Your task to perform on an android device: Open internet settings Image 0: 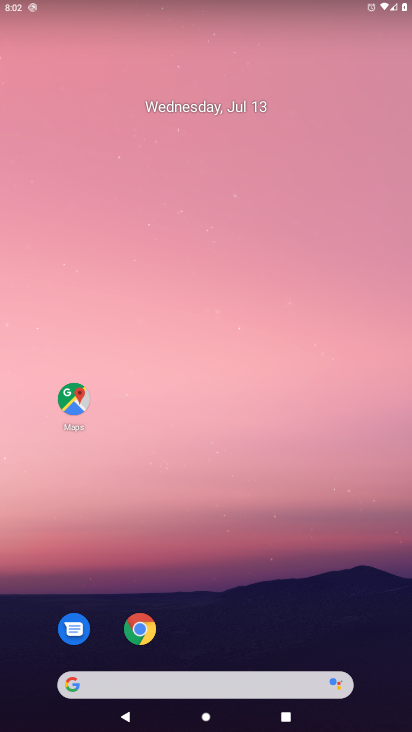
Step 0: drag from (20, 712) to (381, 43)
Your task to perform on an android device: Open internet settings Image 1: 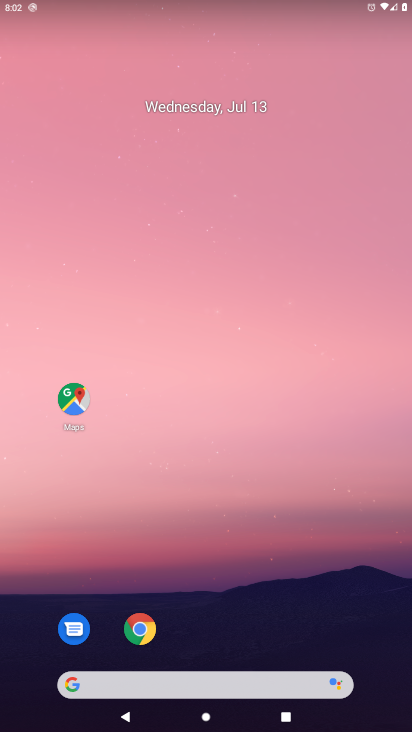
Step 1: drag from (93, 445) to (255, 40)
Your task to perform on an android device: Open internet settings Image 2: 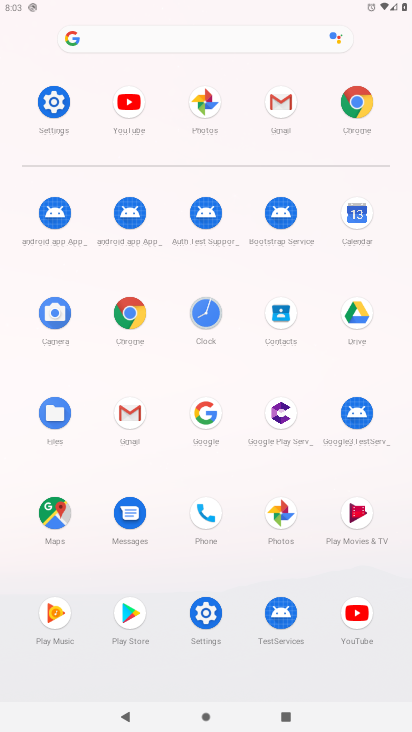
Step 2: click (211, 616)
Your task to perform on an android device: Open internet settings Image 3: 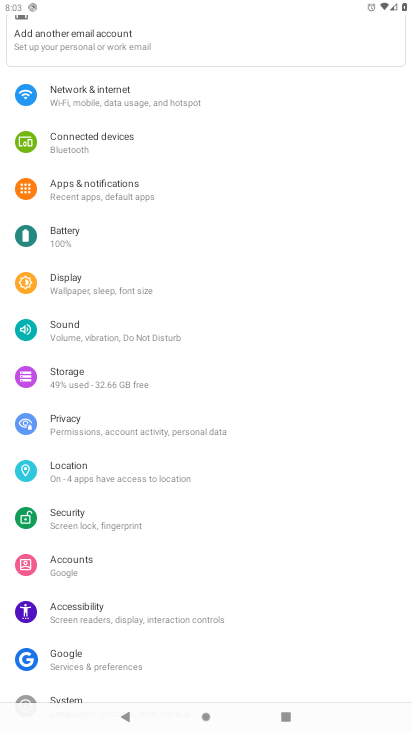
Step 3: click (111, 88)
Your task to perform on an android device: Open internet settings Image 4: 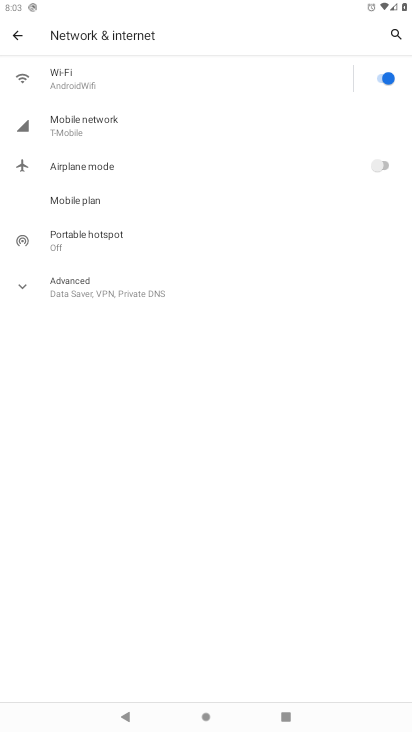
Step 4: task complete